Your task to perform on an android device: Turn on the flashlight Image 0: 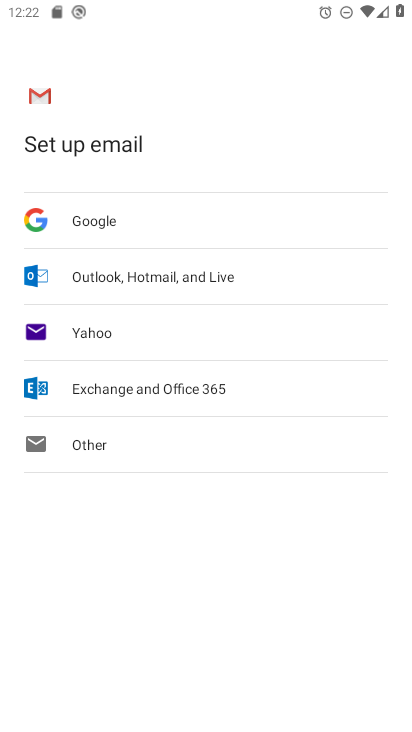
Step 0: drag from (269, 3) to (287, 468)
Your task to perform on an android device: Turn on the flashlight Image 1: 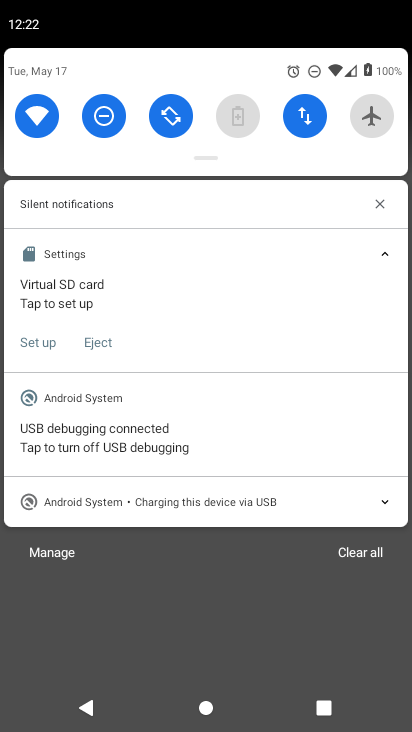
Step 1: click (183, 513)
Your task to perform on an android device: Turn on the flashlight Image 2: 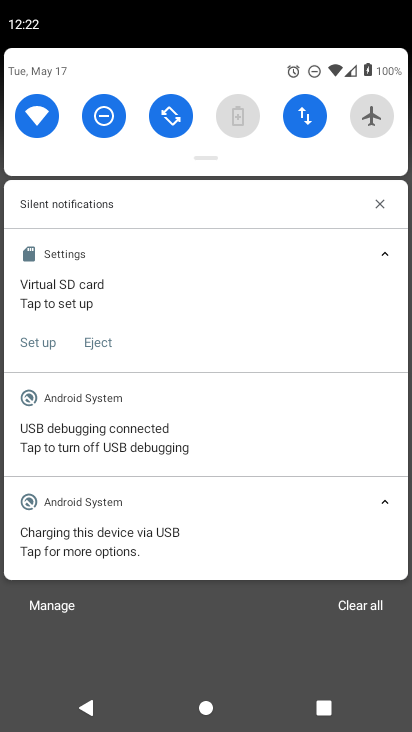
Step 2: drag from (77, 132) to (117, 399)
Your task to perform on an android device: Turn on the flashlight Image 3: 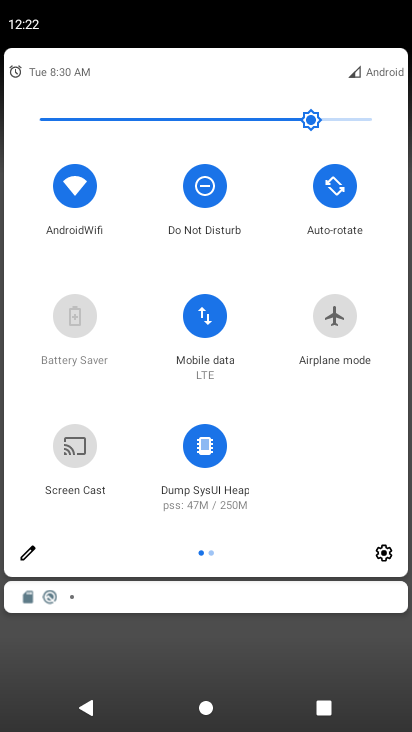
Step 3: drag from (302, 433) to (3, 425)
Your task to perform on an android device: Turn on the flashlight Image 4: 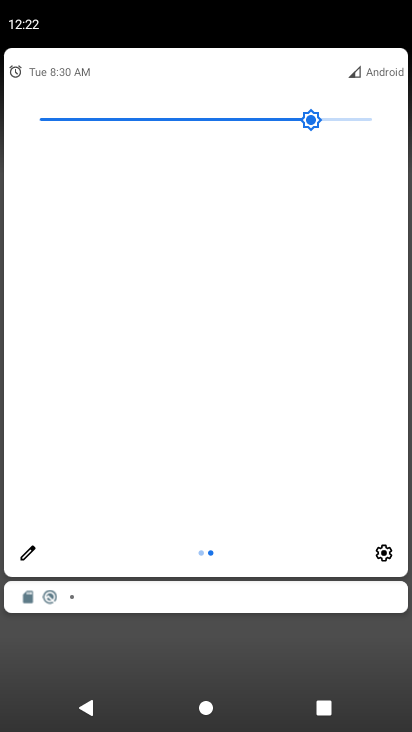
Step 4: click (21, 554)
Your task to perform on an android device: Turn on the flashlight Image 5: 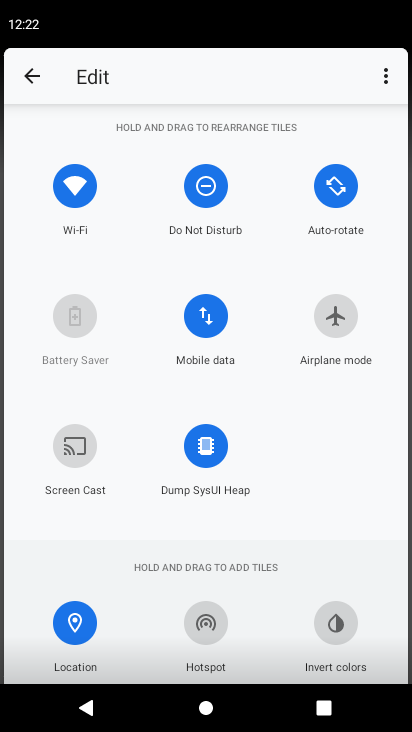
Step 5: task complete